Your task to perform on an android device: Open Google Maps and go to "Timeline" Image 0: 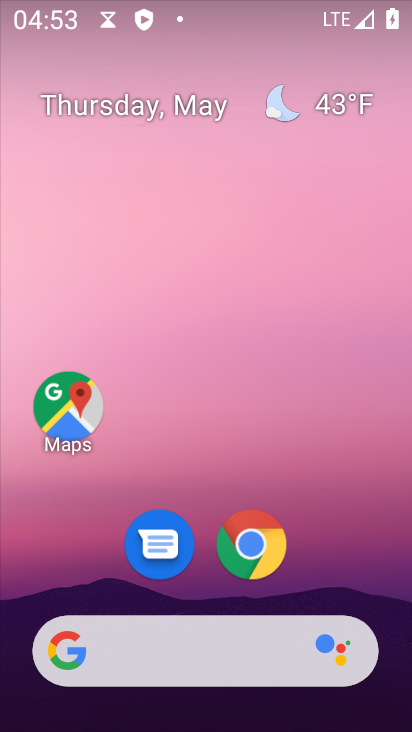
Step 0: drag from (292, 517) to (309, 64)
Your task to perform on an android device: Open Google Maps and go to "Timeline" Image 1: 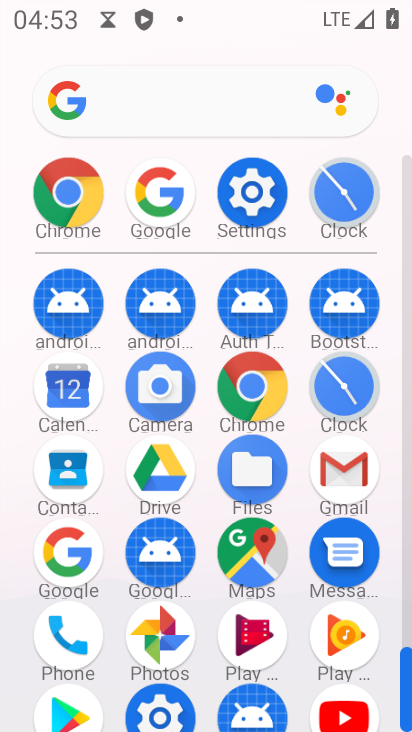
Step 1: click (233, 560)
Your task to perform on an android device: Open Google Maps and go to "Timeline" Image 2: 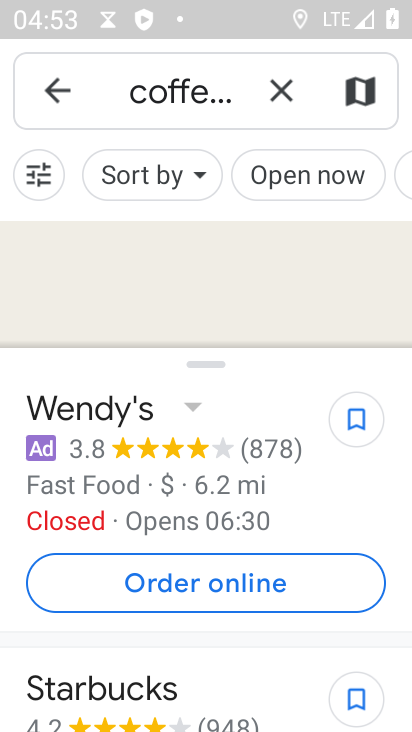
Step 2: click (44, 97)
Your task to perform on an android device: Open Google Maps and go to "Timeline" Image 3: 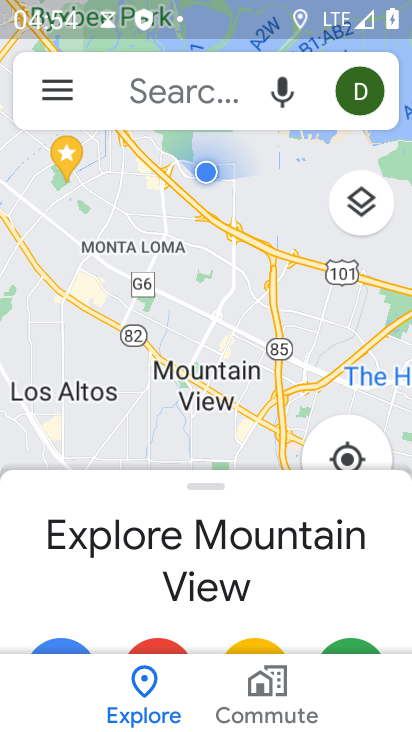
Step 3: click (63, 98)
Your task to perform on an android device: Open Google Maps and go to "Timeline" Image 4: 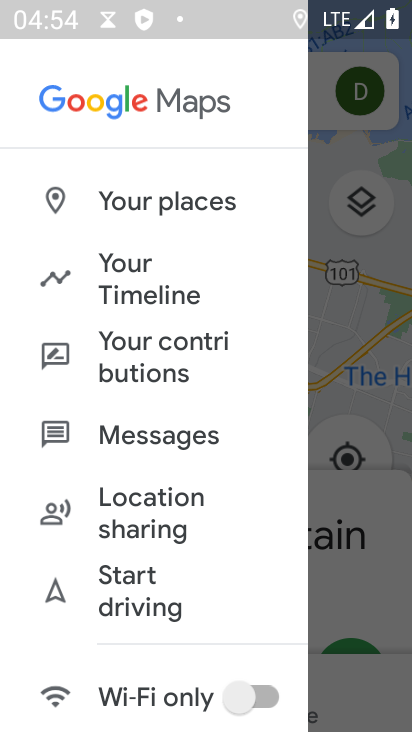
Step 4: click (149, 272)
Your task to perform on an android device: Open Google Maps and go to "Timeline" Image 5: 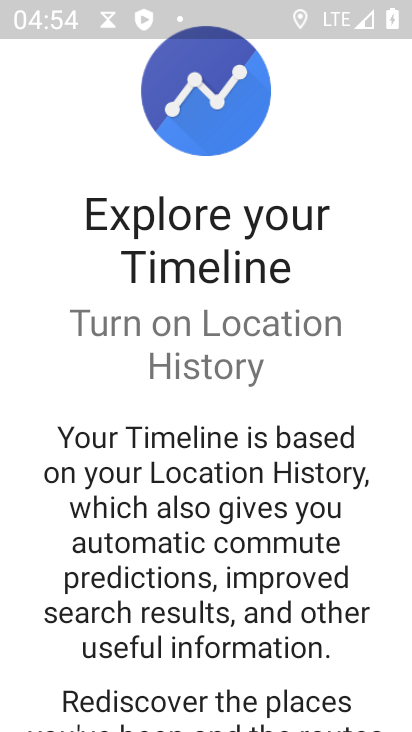
Step 5: drag from (210, 622) to (232, 268)
Your task to perform on an android device: Open Google Maps and go to "Timeline" Image 6: 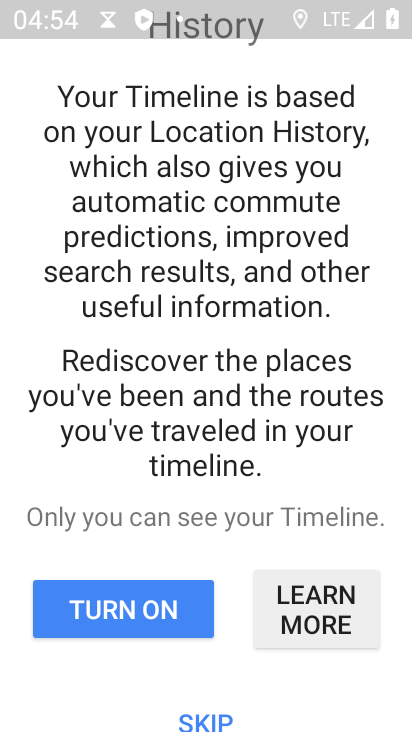
Step 6: click (222, 717)
Your task to perform on an android device: Open Google Maps and go to "Timeline" Image 7: 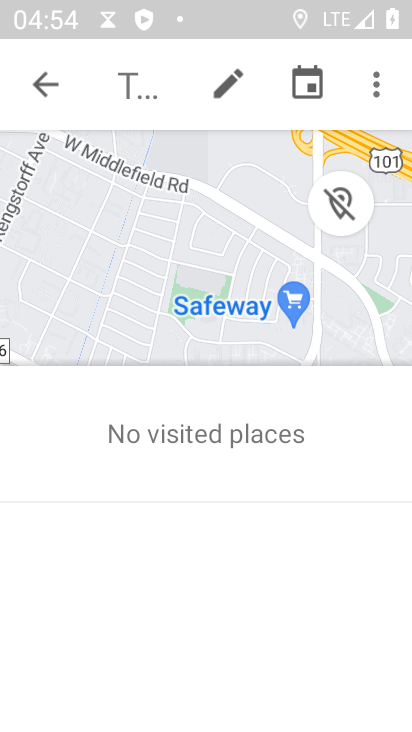
Step 7: task complete